Your task to perform on an android device: choose inbox layout in the gmail app Image 0: 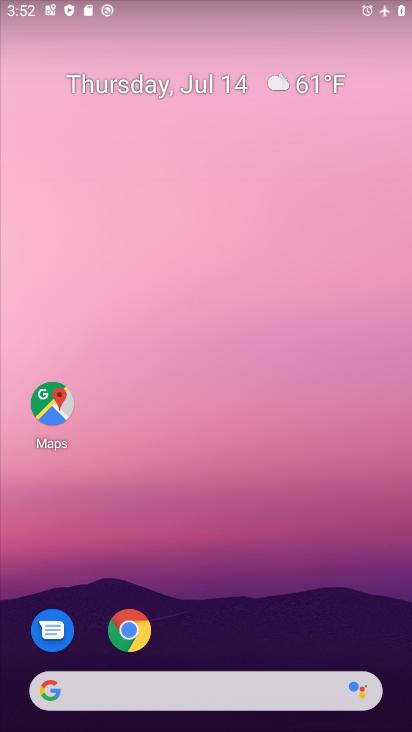
Step 0: drag from (227, 619) to (203, 51)
Your task to perform on an android device: choose inbox layout in the gmail app Image 1: 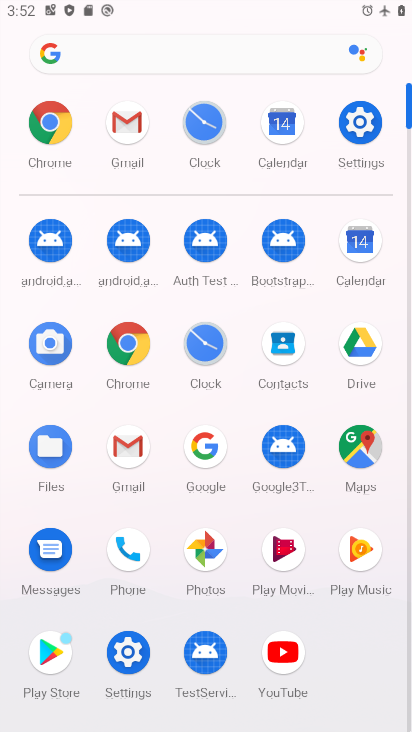
Step 1: click (118, 458)
Your task to perform on an android device: choose inbox layout in the gmail app Image 2: 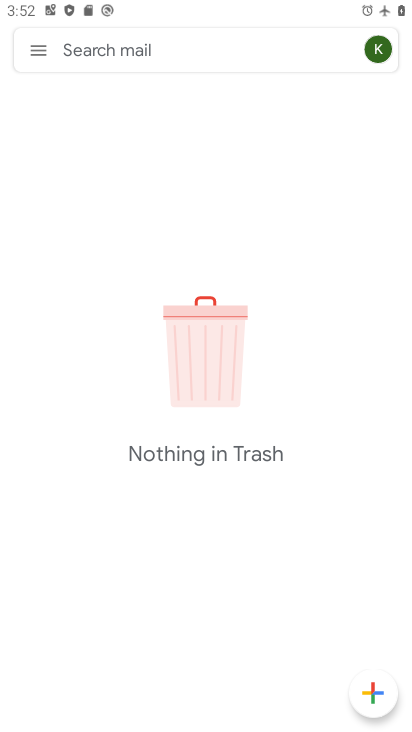
Step 2: click (39, 58)
Your task to perform on an android device: choose inbox layout in the gmail app Image 3: 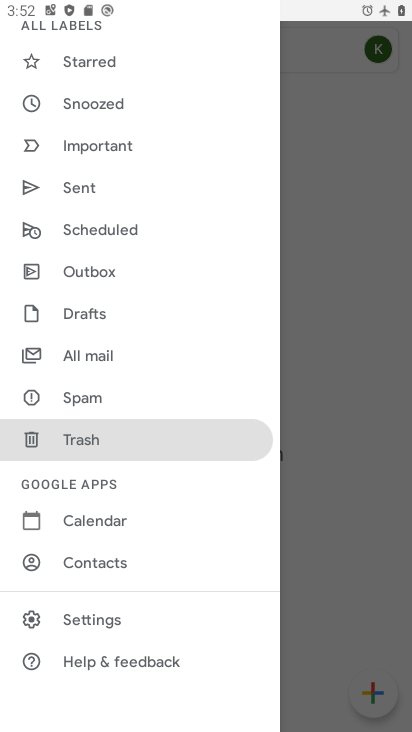
Step 3: drag from (143, 182) to (201, 624)
Your task to perform on an android device: choose inbox layout in the gmail app Image 4: 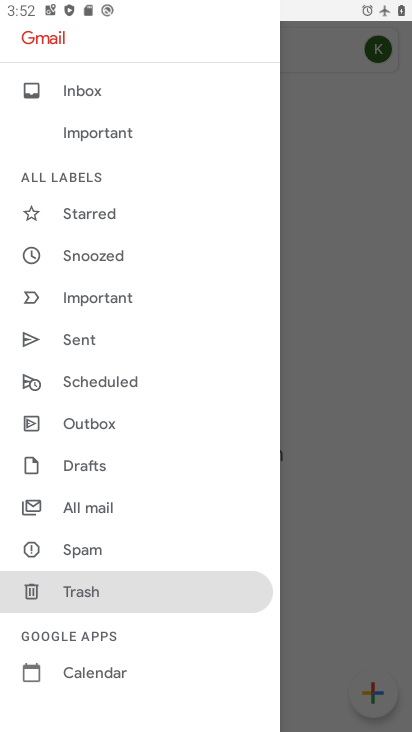
Step 4: drag from (187, 659) to (143, 328)
Your task to perform on an android device: choose inbox layout in the gmail app Image 5: 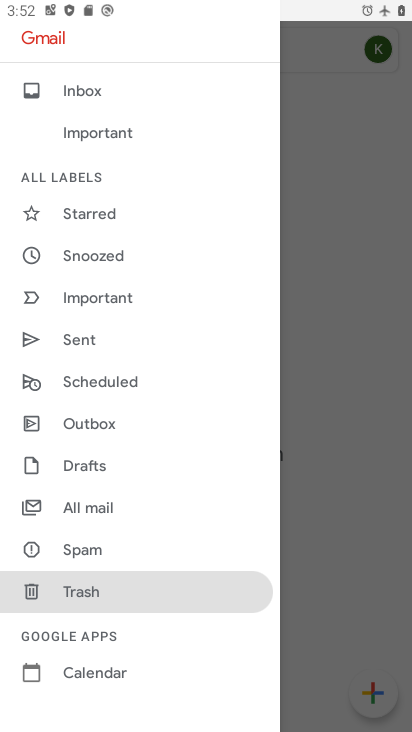
Step 5: drag from (114, 600) to (118, 308)
Your task to perform on an android device: choose inbox layout in the gmail app Image 6: 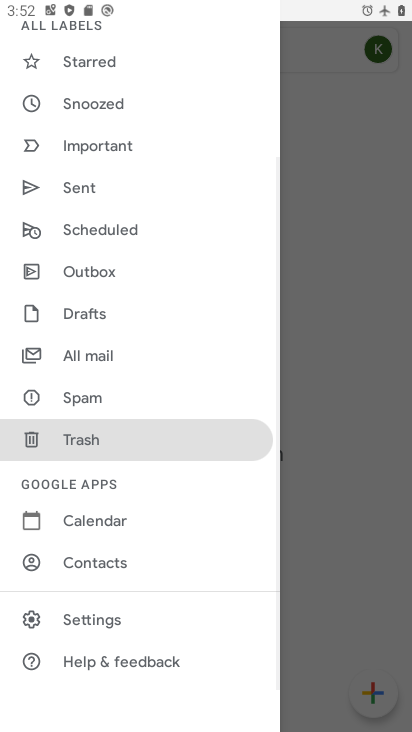
Step 6: click (128, 609)
Your task to perform on an android device: choose inbox layout in the gmail app Image 7: 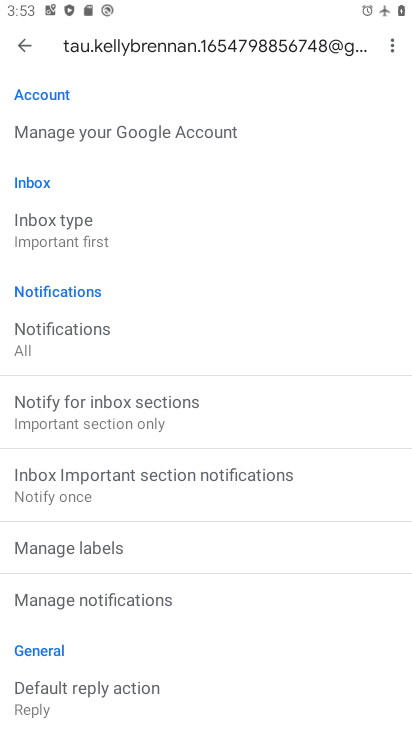
Step 7: drag from (184, 470) to (160, 237)
Your task to perform on an android device: choose inbox layout in the gmail app Image 8: 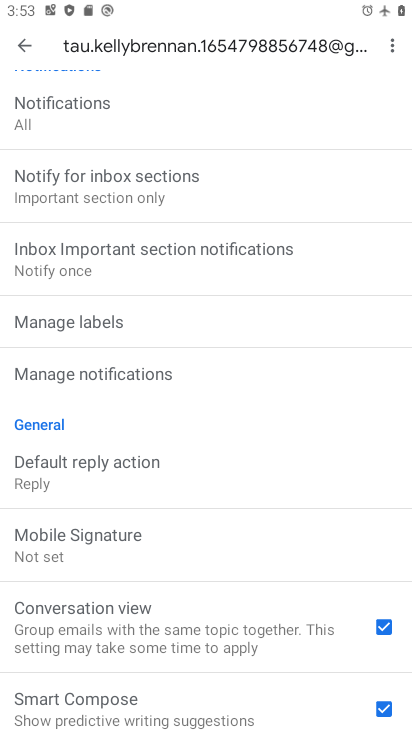
Step 8: drag from (137, 607) to (70, 728)
Your task to perform on an android device: choose inbox layout in the gmail app Image 9: 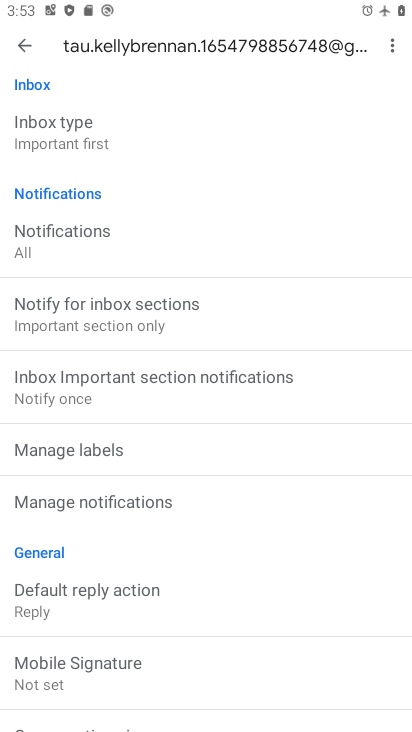
Step 9: click (72, 131)
Your task to perform on an android device: choose inbox layout in the gmail app Image 10: 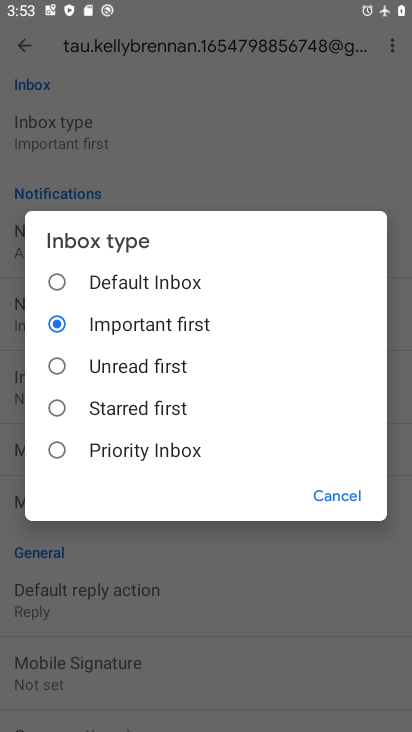
Step 10: click (114, 276)
Your task to perform on an android device: choose inbox layout in the gmail app Image 11: 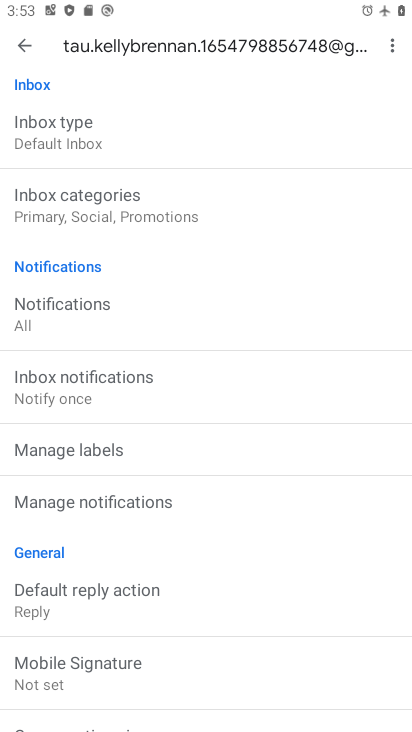
Step 11: task complete